Your task to perform on an android device: Go to Google Image 0: 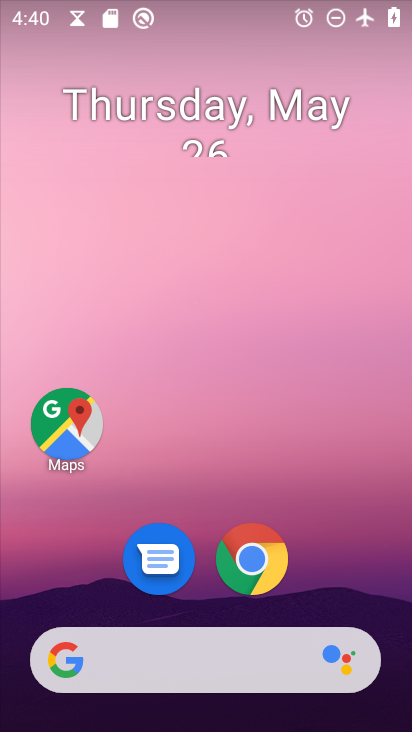
Step 0: drag from (349, 445) to (229, 47)
Your task to perform on an android device: Go to Google Image 1: 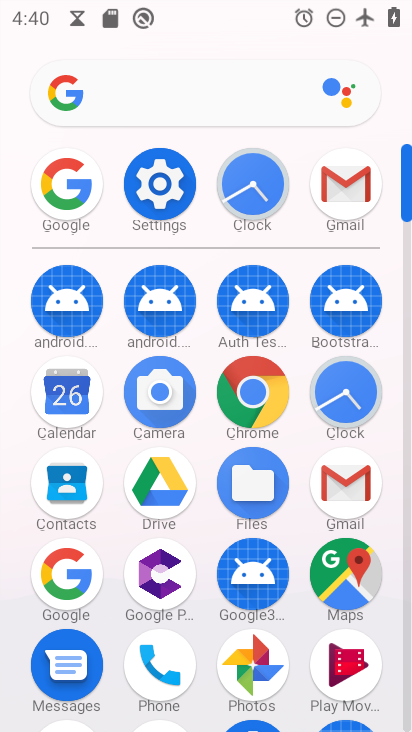
Step 1: click (53, 585)
Your task to perform on an android device: Go to Google Image 2: 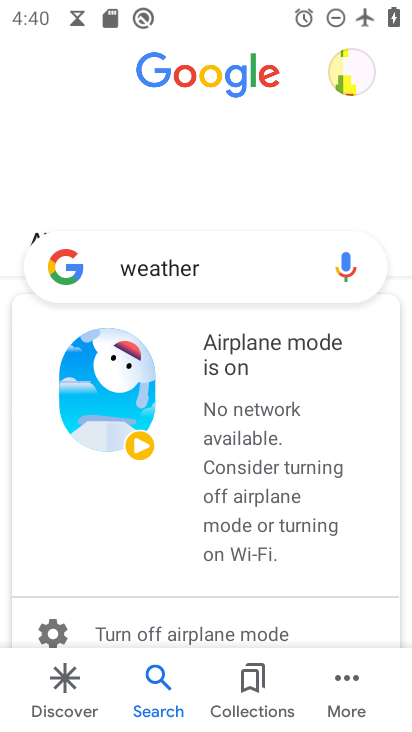
Step 2: task complete